Your task to perform on an android device: see creations saved in the google photos Image 0: 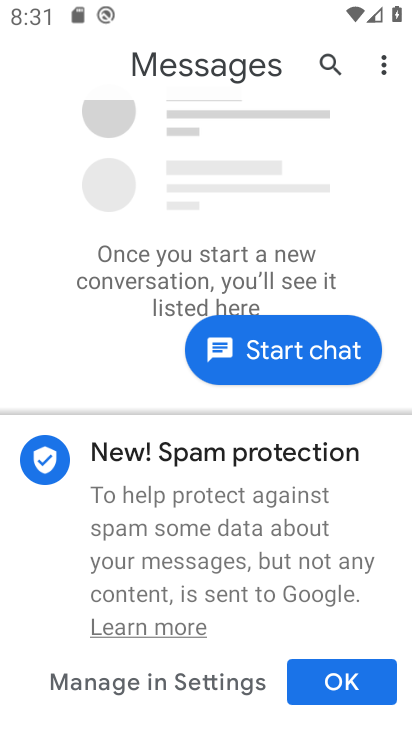
Step 0: press back button
Your task to perform on an android device: see creations saved in the google photos Image 1: 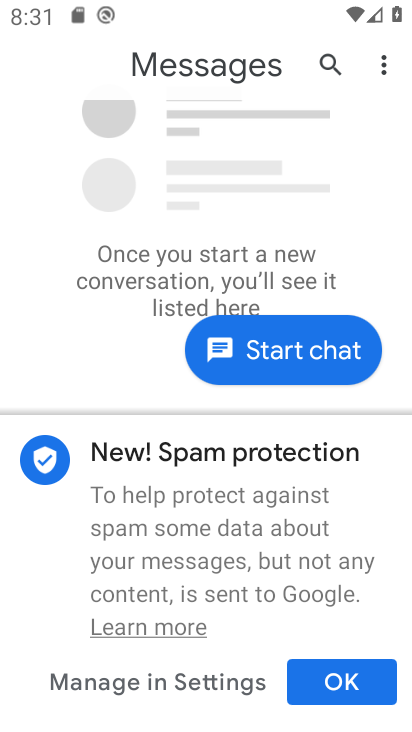
Step 1: press back button
Your task to perform on an android device: see creations saved in the google photos Image 2: 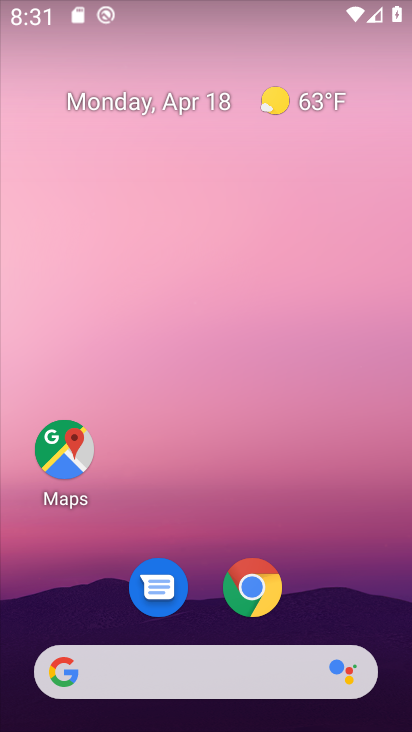
Step 2: drag from (352, 583) to (241, 120)
Your task to perform on an android device: see creations saved in the google photos Image 3: 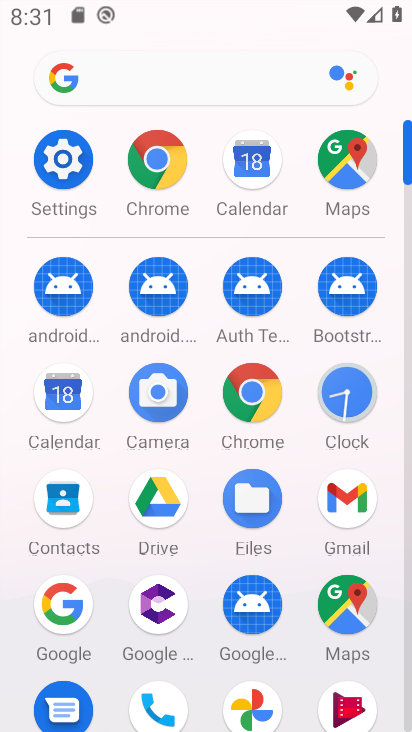
Step 3: click (265, 718)
Your task to perform on an android device: see creations saved in the google photos Image 4: 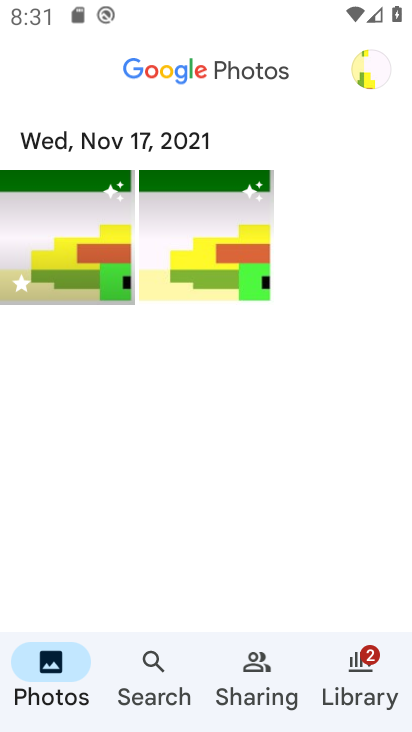
Step 4: click (377, 681)
Your task to perform on an android device: see creations saved in the google photos Image 5: 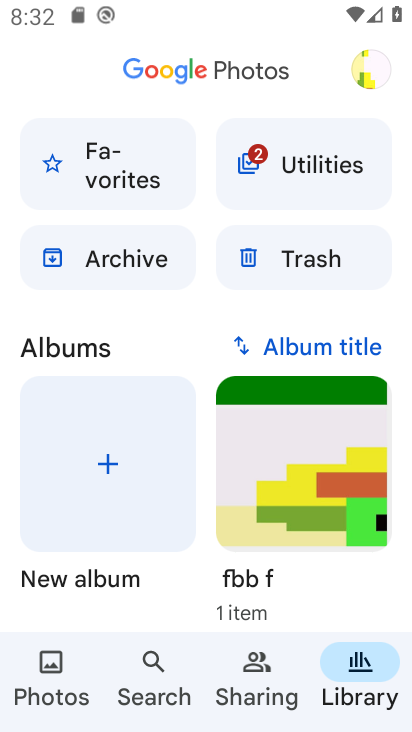
Step 5: task complete